Your task to perform on an android device: Open display settings Image 0: 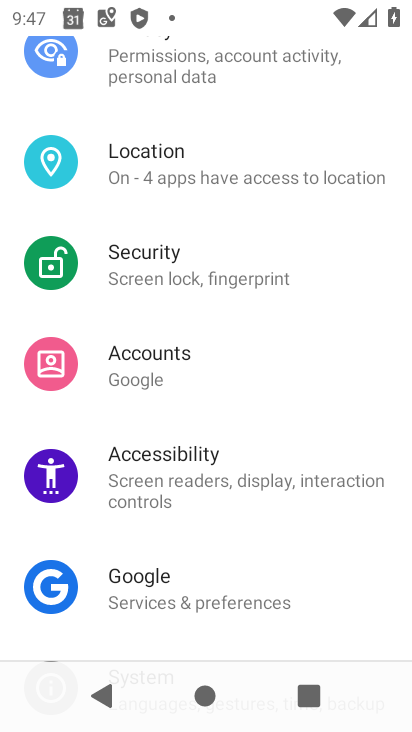
Step 0: press home button
Your task to perform on an android device: Open display settings Image 1: 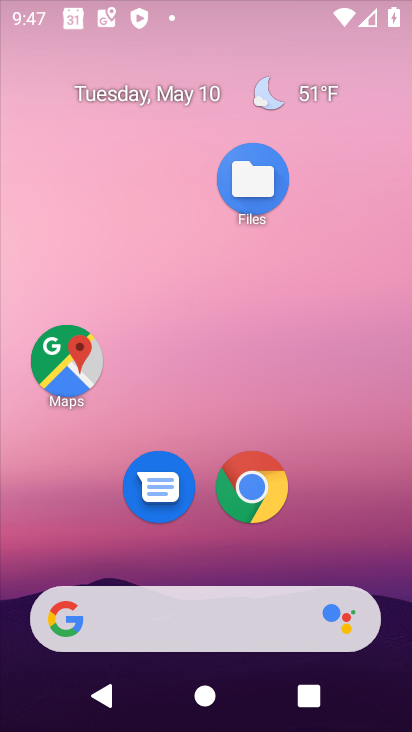
Step 1: drag from (209, 572) to (237, 51)
Your task to perform on an android device: Open display settings Image 2: 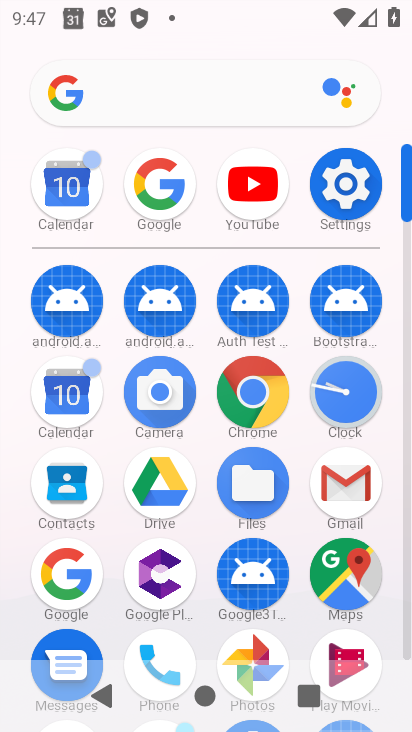
Step 2: click (359, 185)
Your task to perform on an android device: Open display settings Image 3: 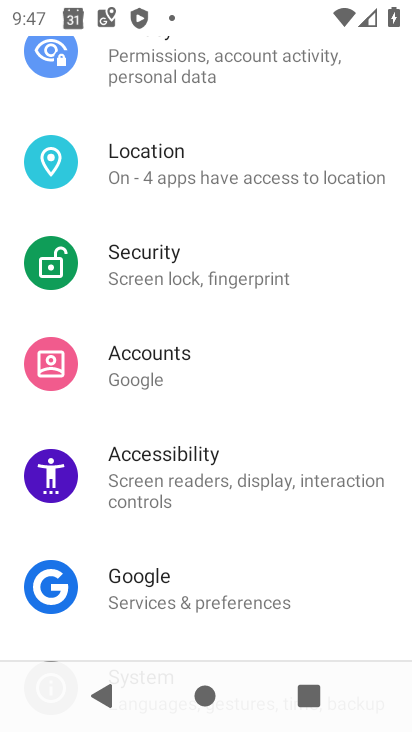
Step 3: drag from (183, 190) to (180, 690)
Your task to perform on an android device: Open display settings Image 4: 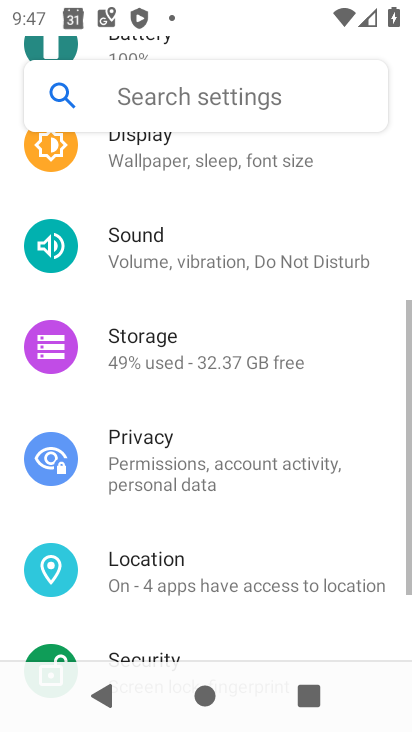
Step 4: drag from (195, 252) to (185, 695)
Your task to perform on an android device: Open display settings Image 5: 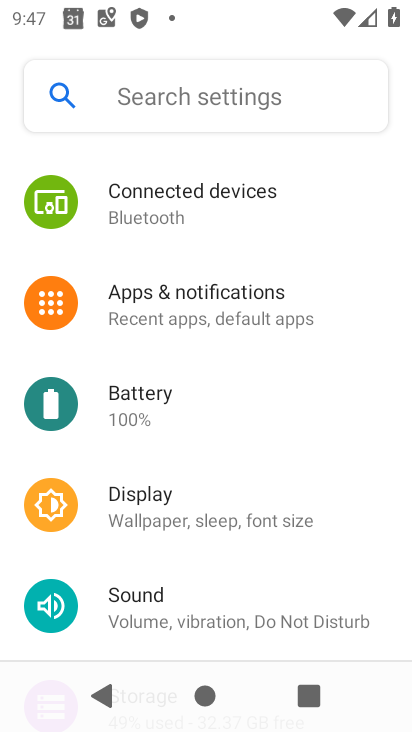
Step 5: click (161, 501)
Your task to perform on an android device: Open display settings Image 6: 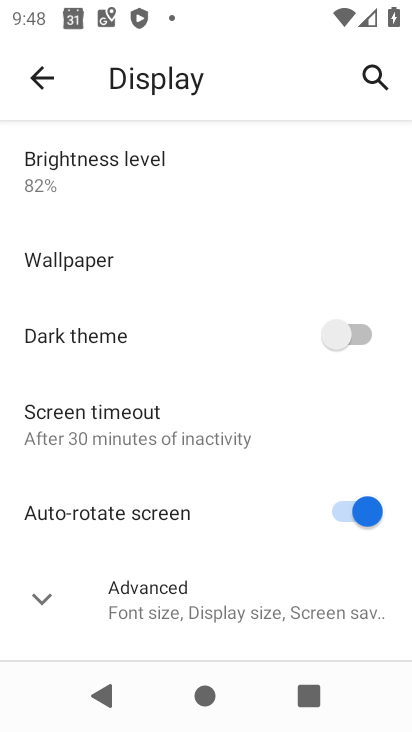
Step 6: task complete